Your task to perform on an android device: Clear all items from cart on amazon. Search for "sony triple a" on amazon, select the first entry, add it to the cart, then select checkout. Image 0: 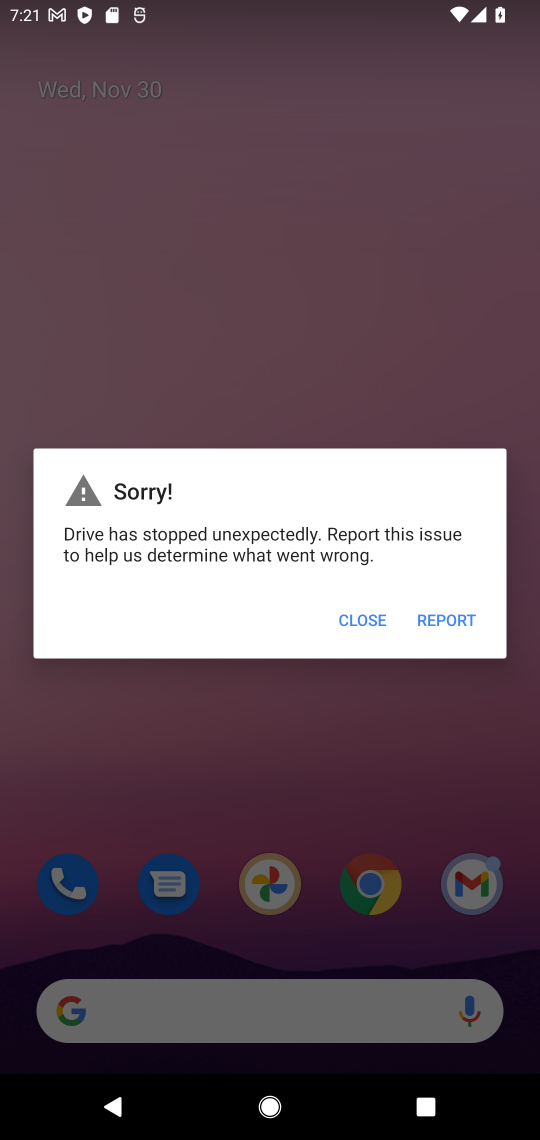
Step 0: press home button
Your task to perform on an android device: Clear all items from cart on amazon. Search for "sony triple a" on amazon, select the first entry, add it to the cart, then select checkout. Image 1: 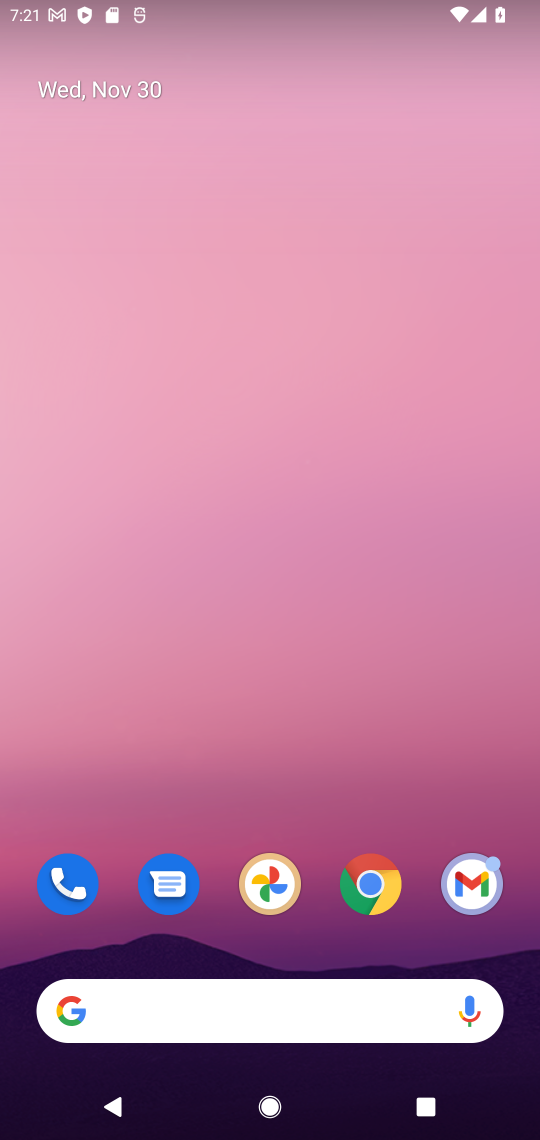
Step 1: click (364, 880)
Your task to perform on an android device: Clear all items from cart on amazon. Search for "sony triple a" on amazon, select the first entry, add it to the cart, then select checkout. Image 2: 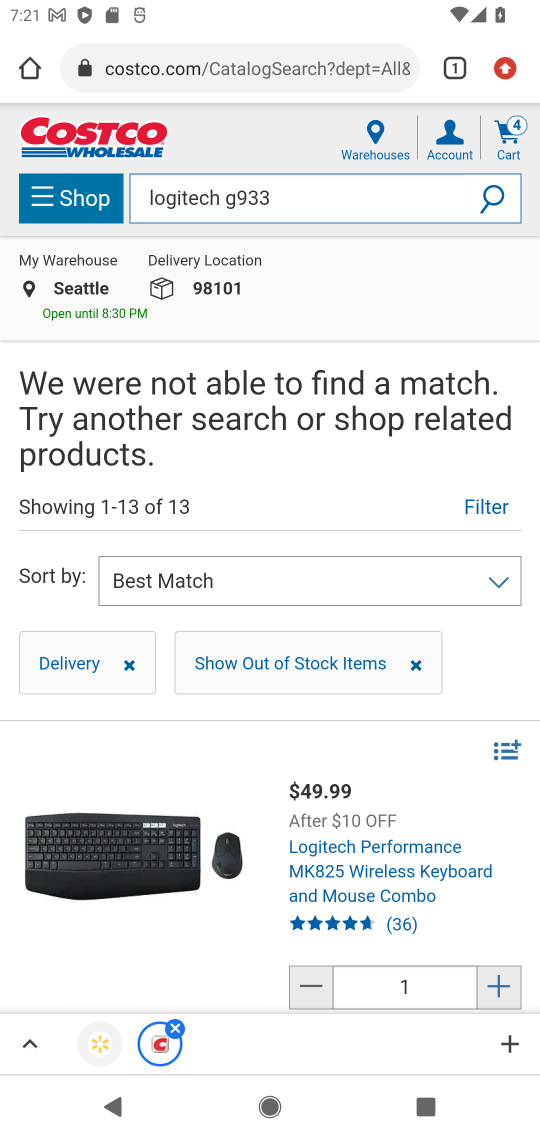
Step 2: click (197, 72)
Your task to perform on an android device: Clear all items from cart on amazon. Search for "sony triple a" on amazon, select the first entry, add it to the cart, then select checkout. Image 3: 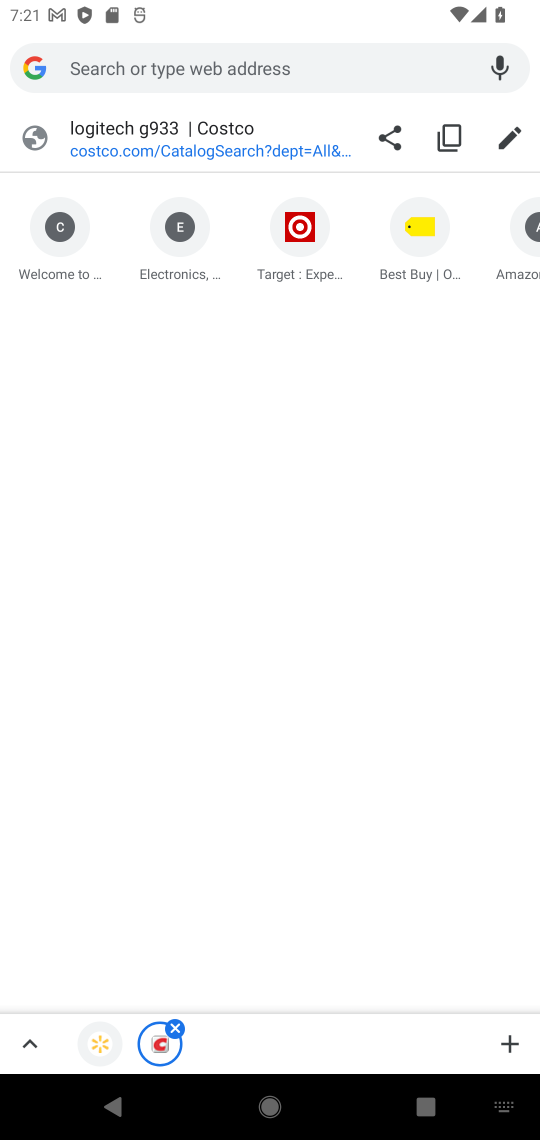
Step 3: click (521, 278)
Your task to perform on an android device: Clear all items from cart on amazon. Search for "sony triple a" on amazon, select the first entry, add it to the cart, then select checkout. Image 4: 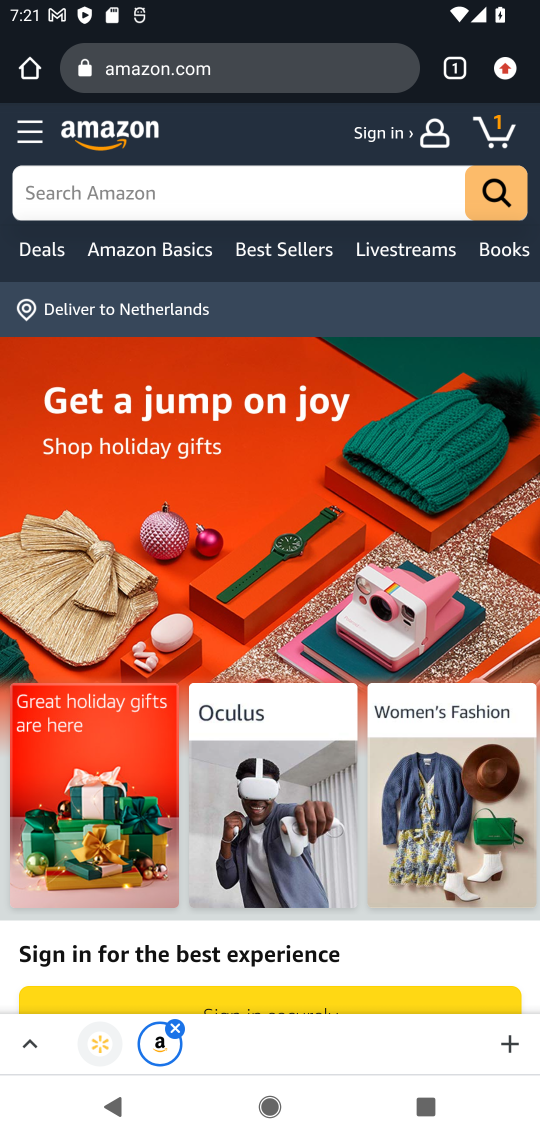
Step 4: click (498, 137)
Your task to perform on an android device: Clear all items from cart on amazon. Search for "sony triple a" on amazon, select the first entry, add it to the cart, then select checkout. Image 5: 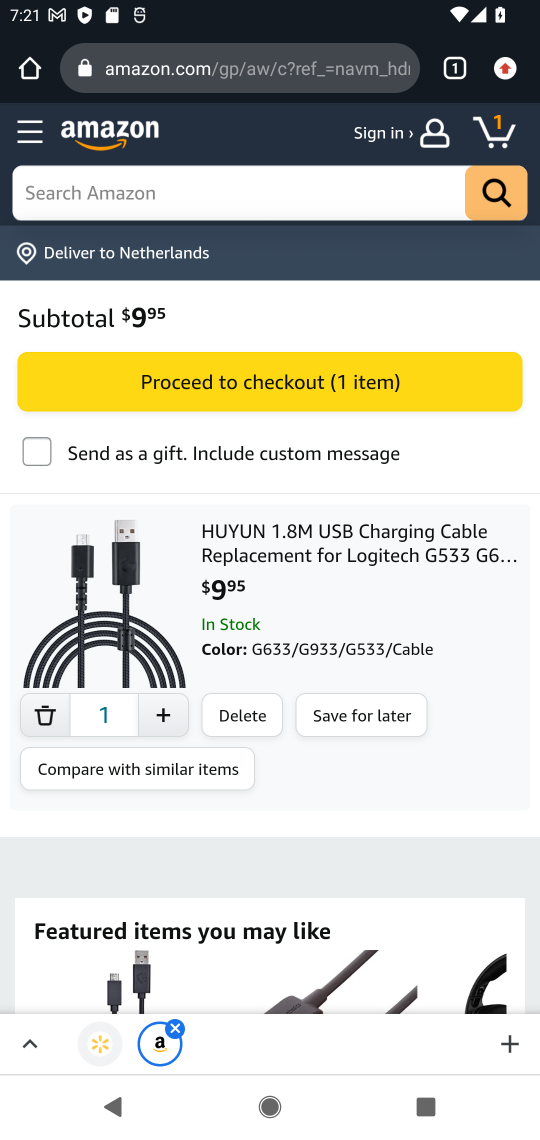
Step 5: click (232, 719)
Your task to perform on an android device: Clear all items from cart on amazon. Search for "sony triple a" on amazon, select the first entry, add it to the cart, then select checkout. Image 6: 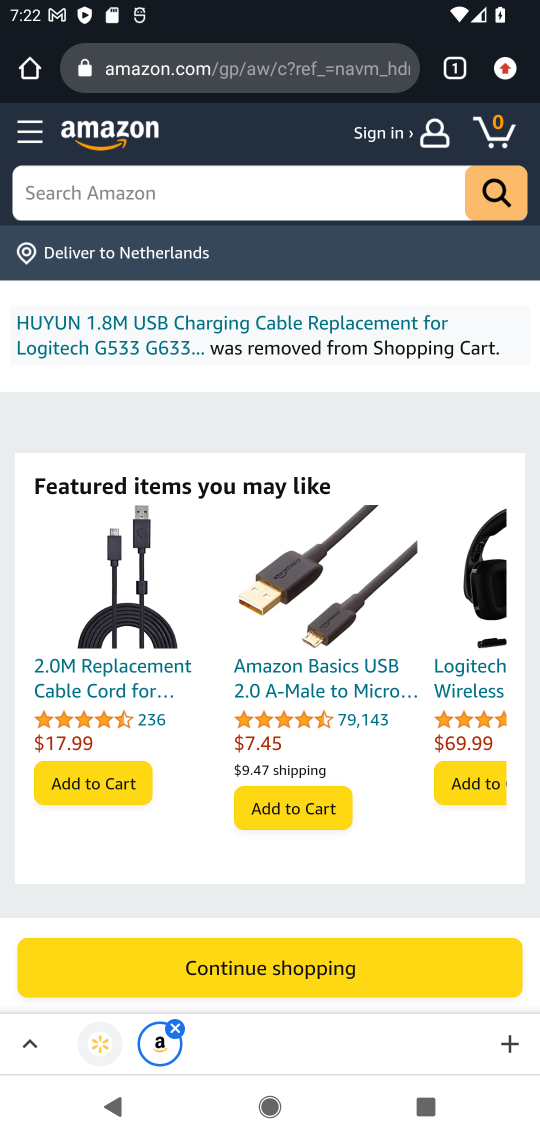
Step 6: click (125, 194)
Your task to perform on an android device: Clear all items from cart on amazon. Search for "sony triple a" on amazon, select the first entry, add it to the cart, then select checkout. Image 7: 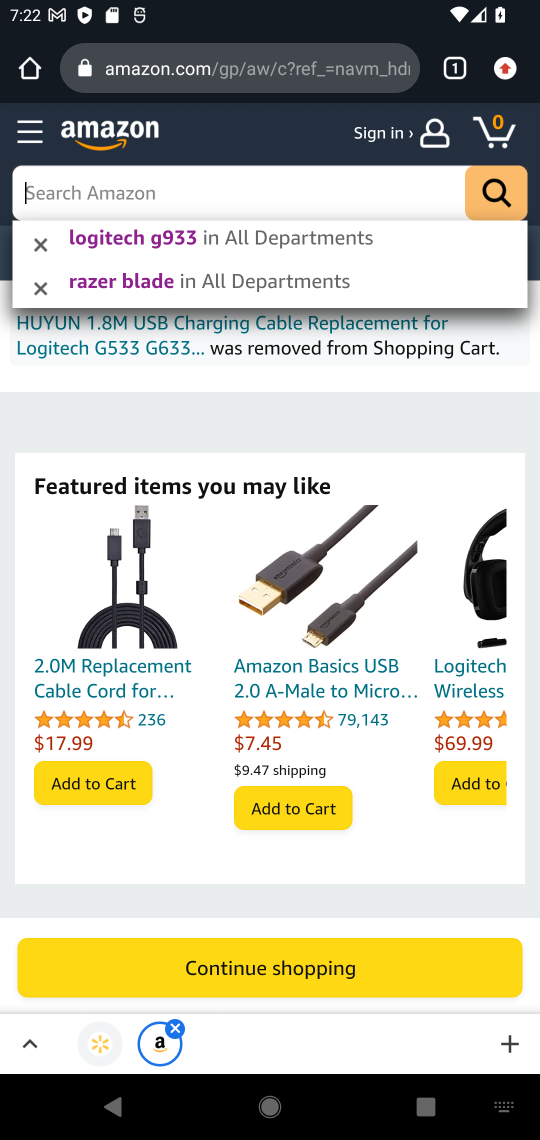
Step 7: type "sony triple a"
Your task to perform on an android device: Clear all items from cart on amazon. Search for "sony triple a" on amazon, select the first entry, add it to the cart, then select checkout. Image 8: 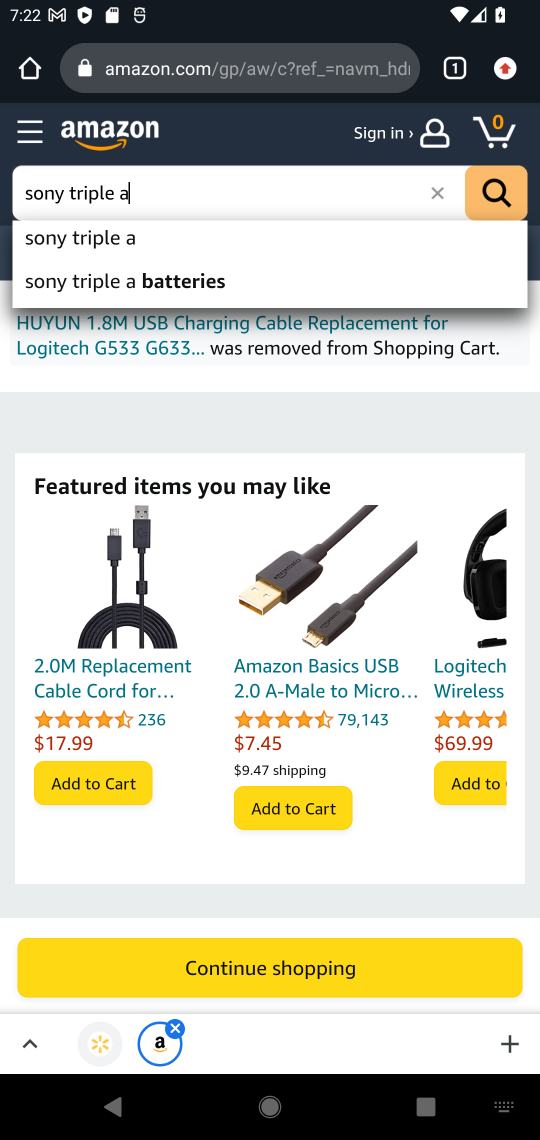
Step 8: click (70, 246)
Your task to perform on an android device: Clear all items from cart on amazon. Search for "sony triple a" on amazon, select the first entry, add it to the cart, then select checkout. Image 9: 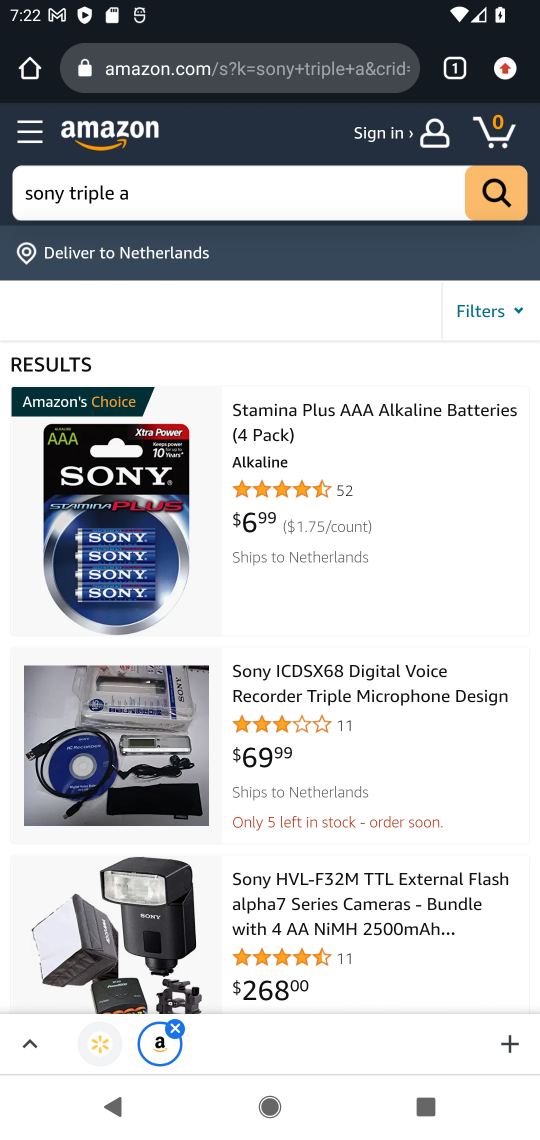
Step 9: click (262, 422)
Your task to perform on an android device: Clear all items from cart on amazon. Search for "sony triple a" on amazon, select the first entry, add it to the cart, then select checkout. Image 10: 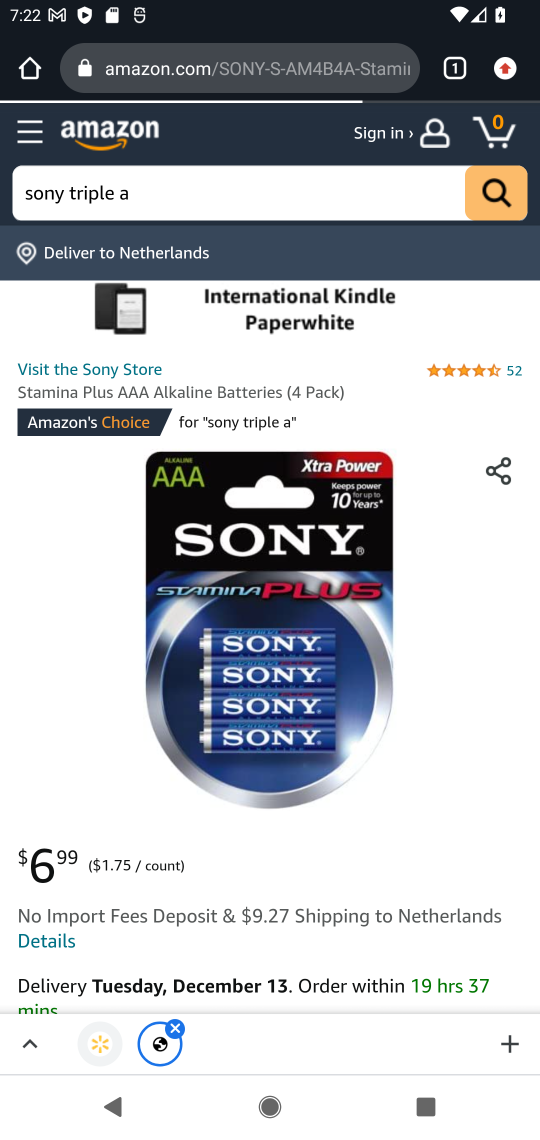
Step 10: drag from (278, 630) to (241, 400)
Your task to perform on an android device: Clear all items from cart on amazon. Search for "sony triple a" on amazon, select the first entry, add it to the cart, then select checkout. Image 11: 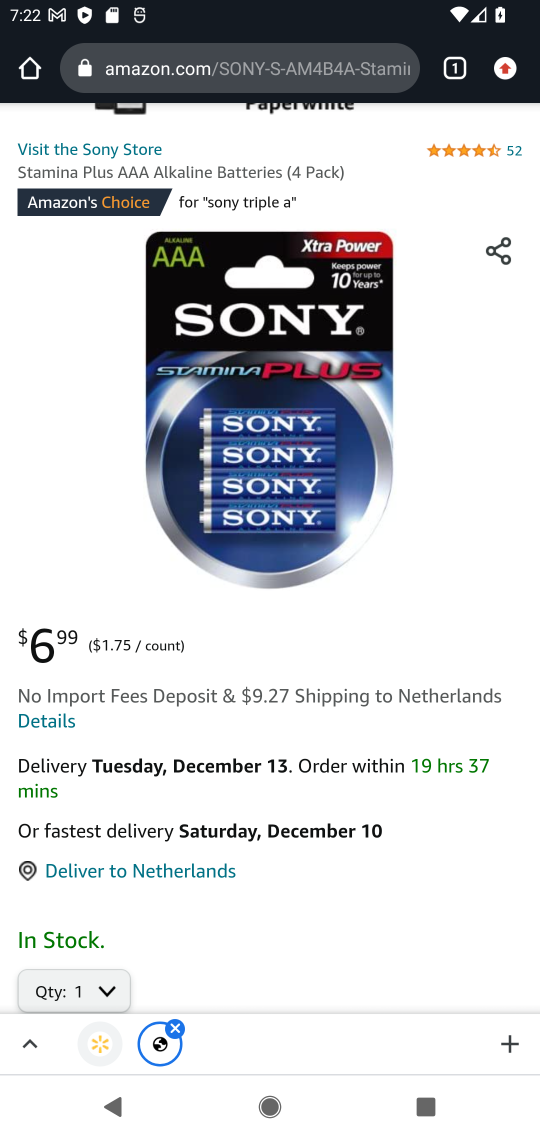
Step 11: drag from (332, 868) to (275, 468)
Your task to perform on an android device: Clear all items from cart on amazon. Search for "sony triple a" on amazon, select the first entry, add it to the cart, then select checkout. Image 12: 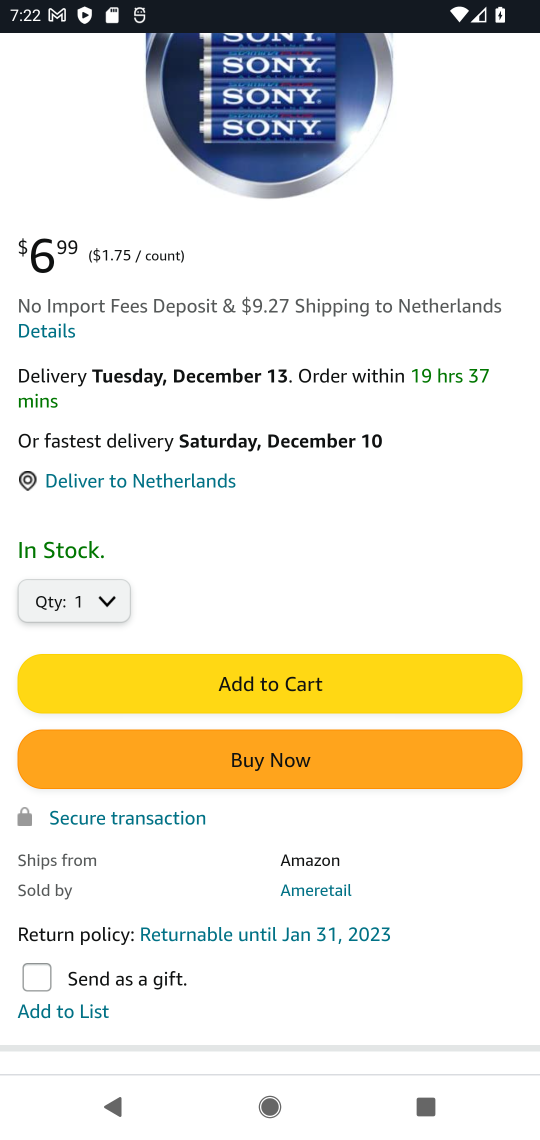
Step 12: click (257, 674)
Your task to perform on an android device: Clear all items from cart on amazon. Search for "sony triple a" on amazon, select the first entry, add it to the cart, then select checkout. Image 13: 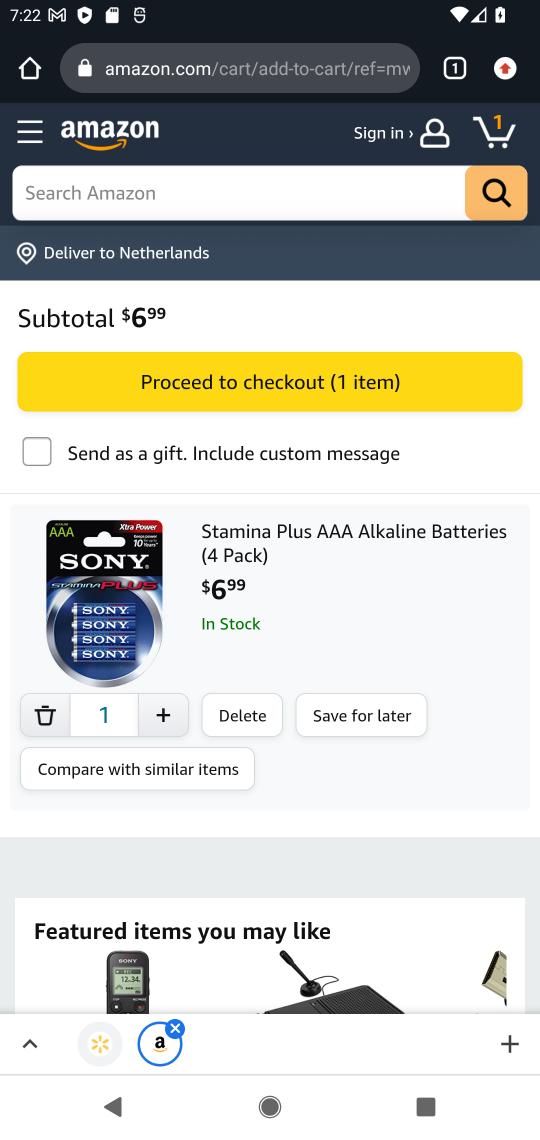
Step 13: click (264, 383)
Your task to perform on an android device: Clear all items from cart on amazon. Search for "sony triple a" on amazon, select the first entry, add it to the cart, then select checkout. Image 14: 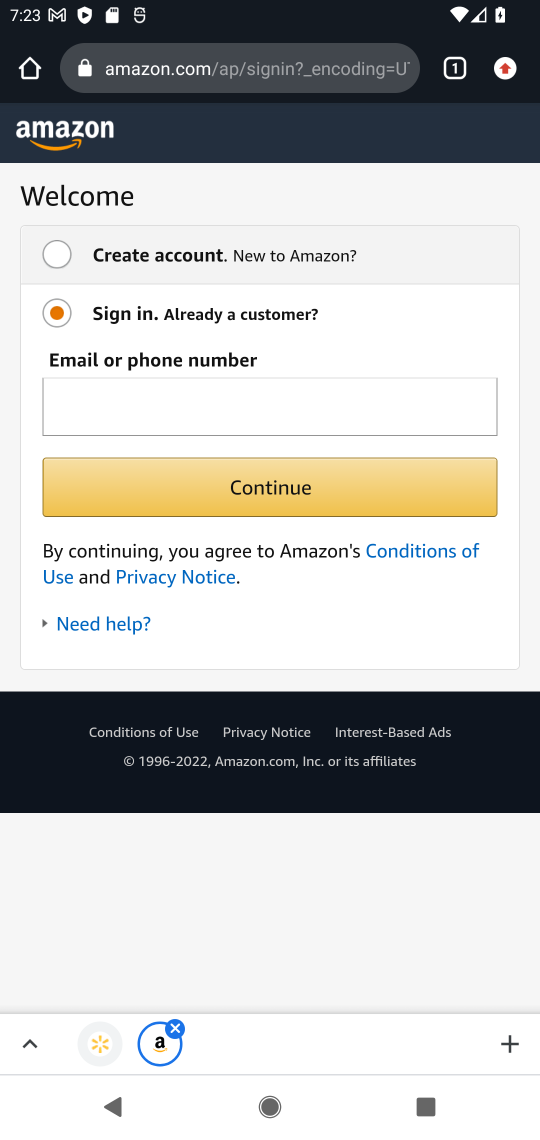
Step 14: task complete